Your task to perform on an android device: Search for a custom made wallet Image 0: 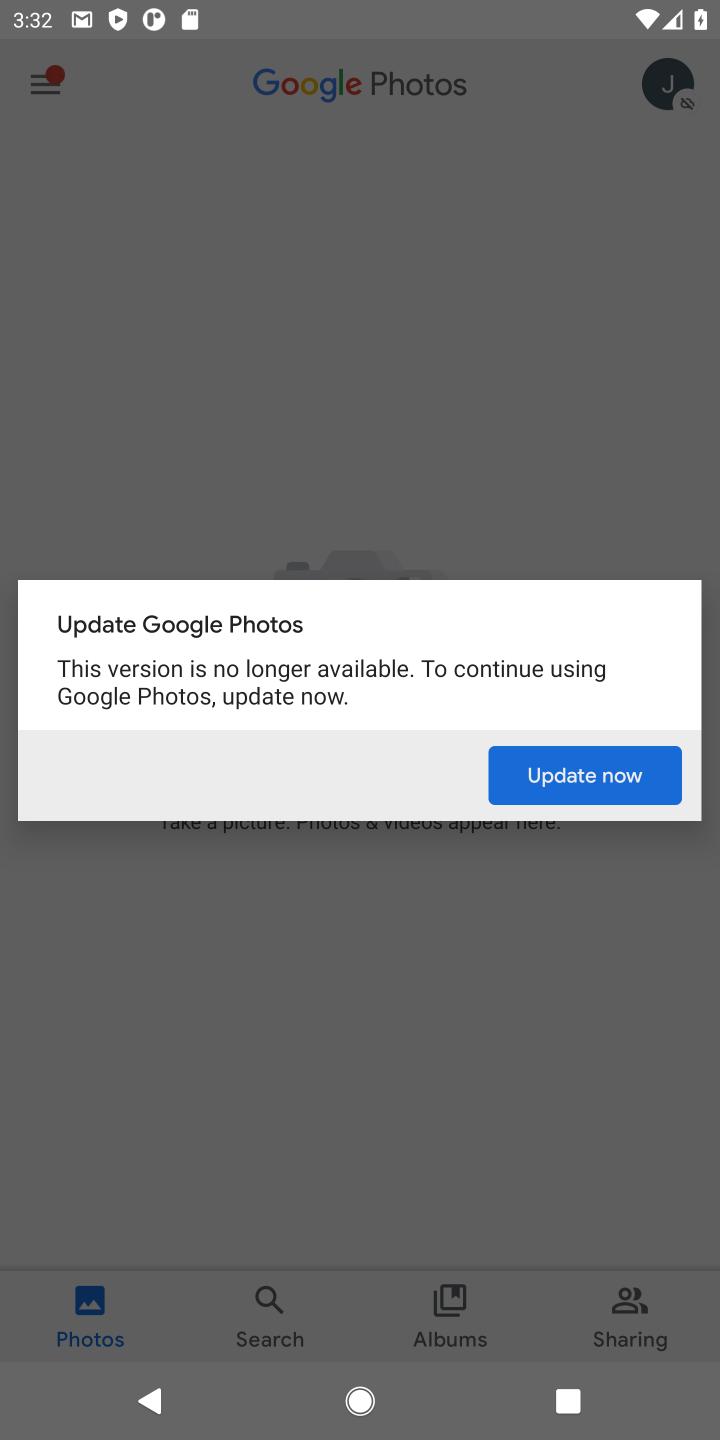
Step 0: press home button
Your task to perform on an android device: Search for a custom made wallet Image 1: 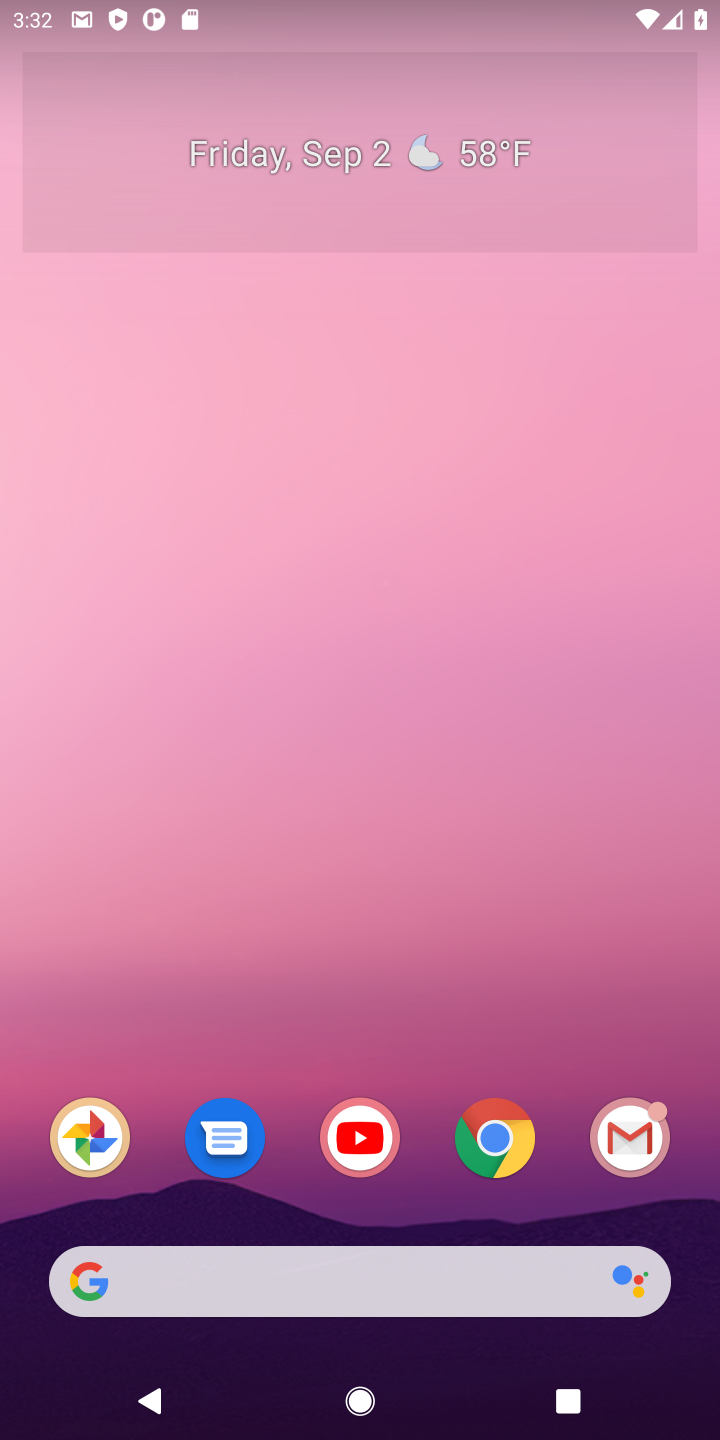
Step 1: click (489, 1174)
Your task to perform on an android device: Search for a custom made wallet Image 2: 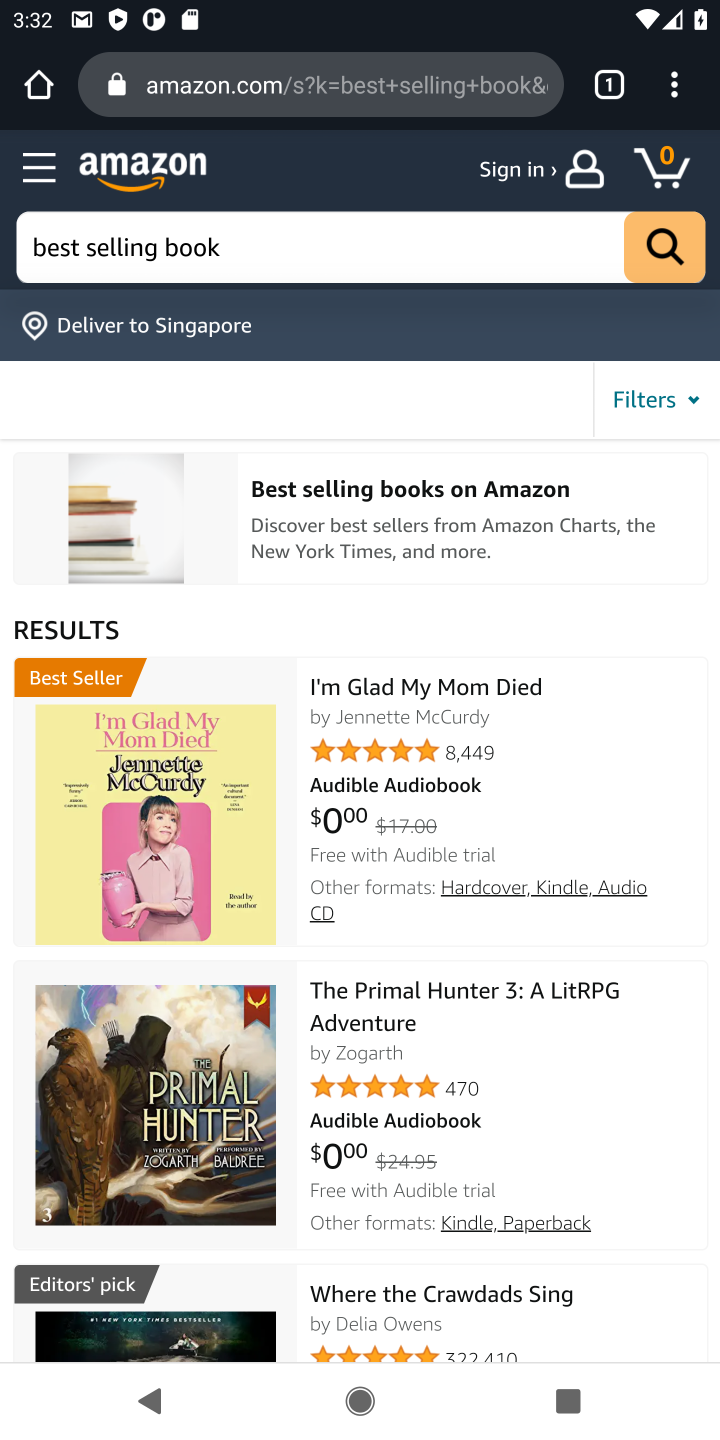
Step 2: click (272, 83)
Your task to perform on an android device: Search for a custom made wallet Image 3: 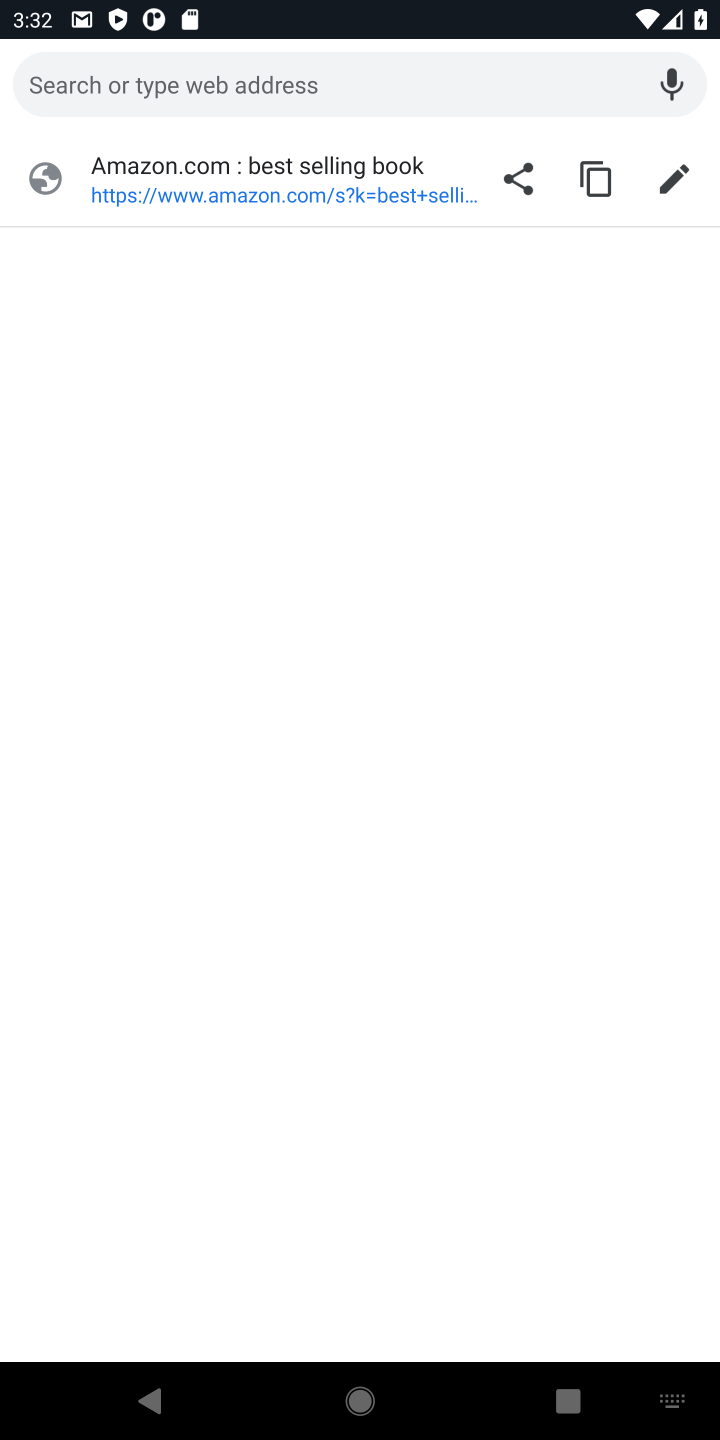
Step 3: type "custom made wallet"
Your task to perform on an android device: Search for a custom made wallet Image 4: 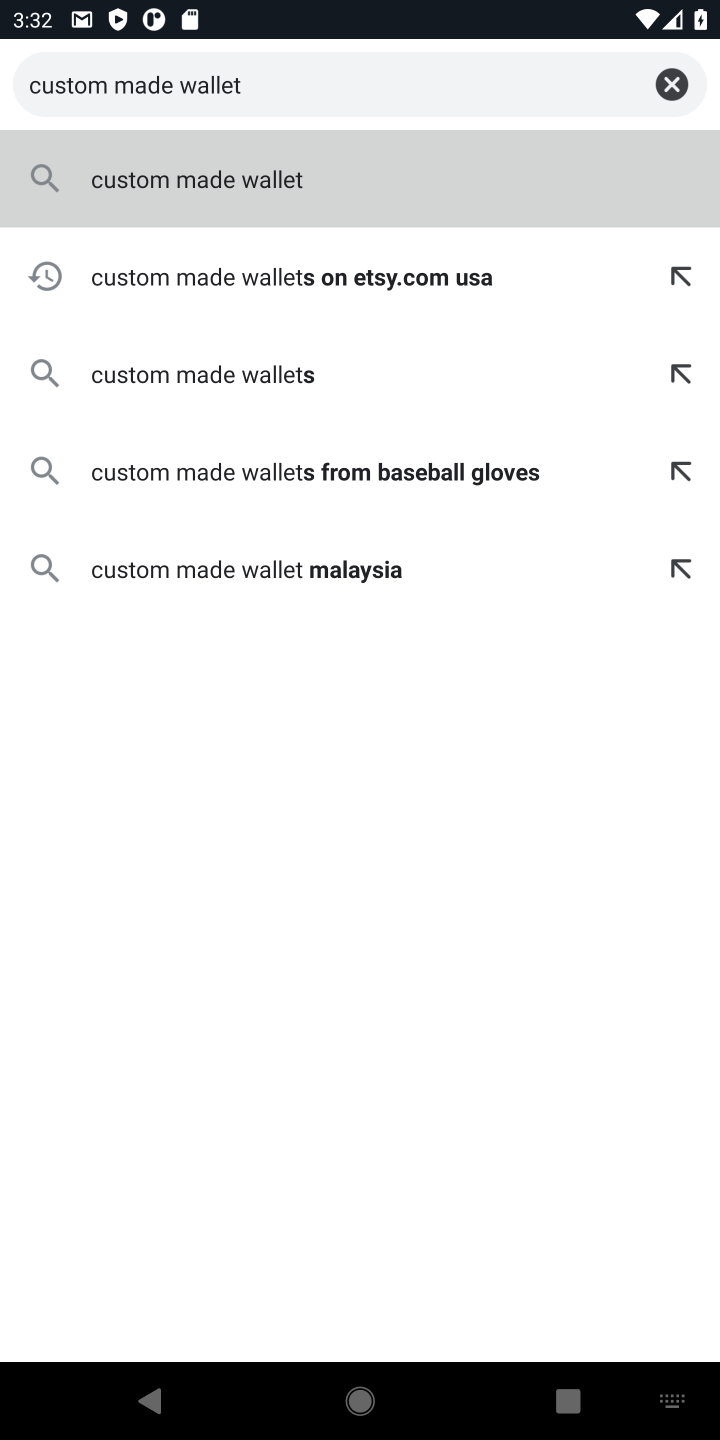
Step 4: click (464, 194)
Your task to perform on an android device: Search for a custom made wallet Image 5: 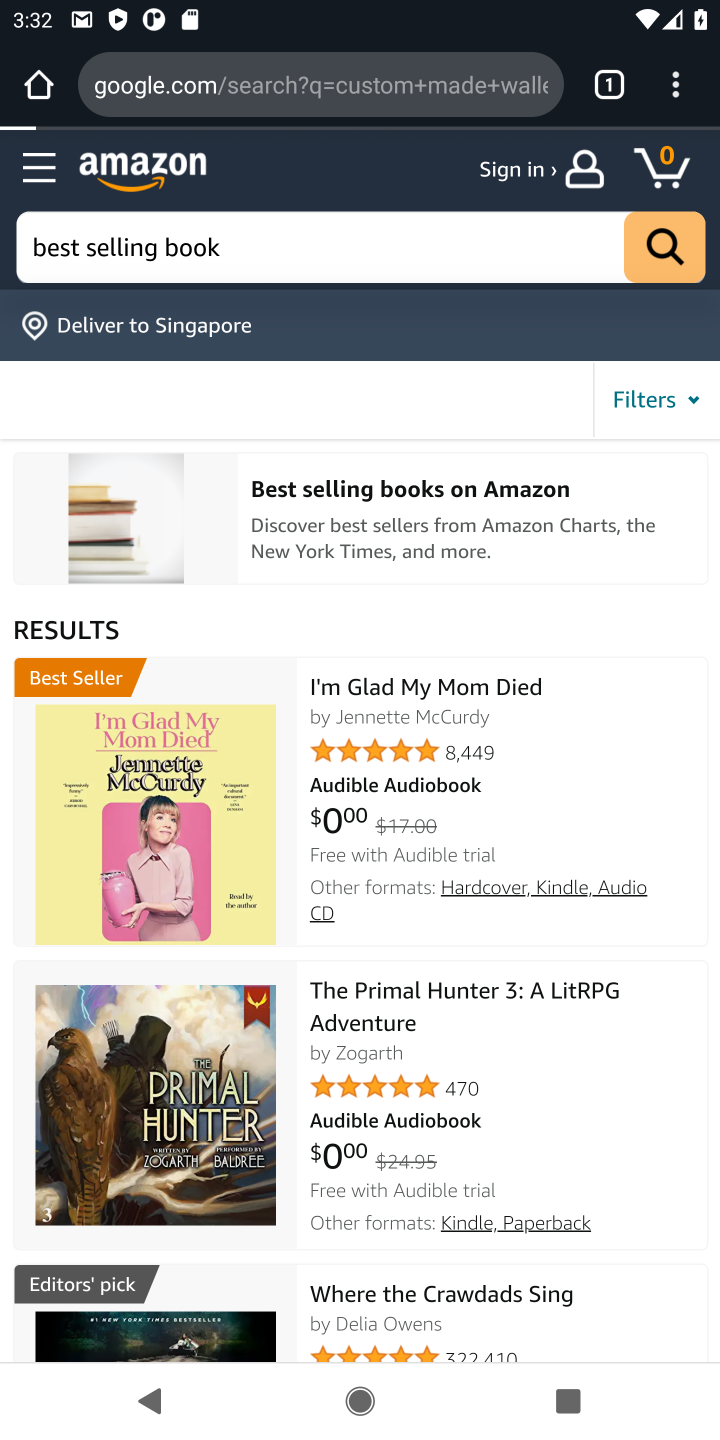
Step 5: click (464, 194)
Your task to perform on an android device: Search for a custom made wallet Image 6: 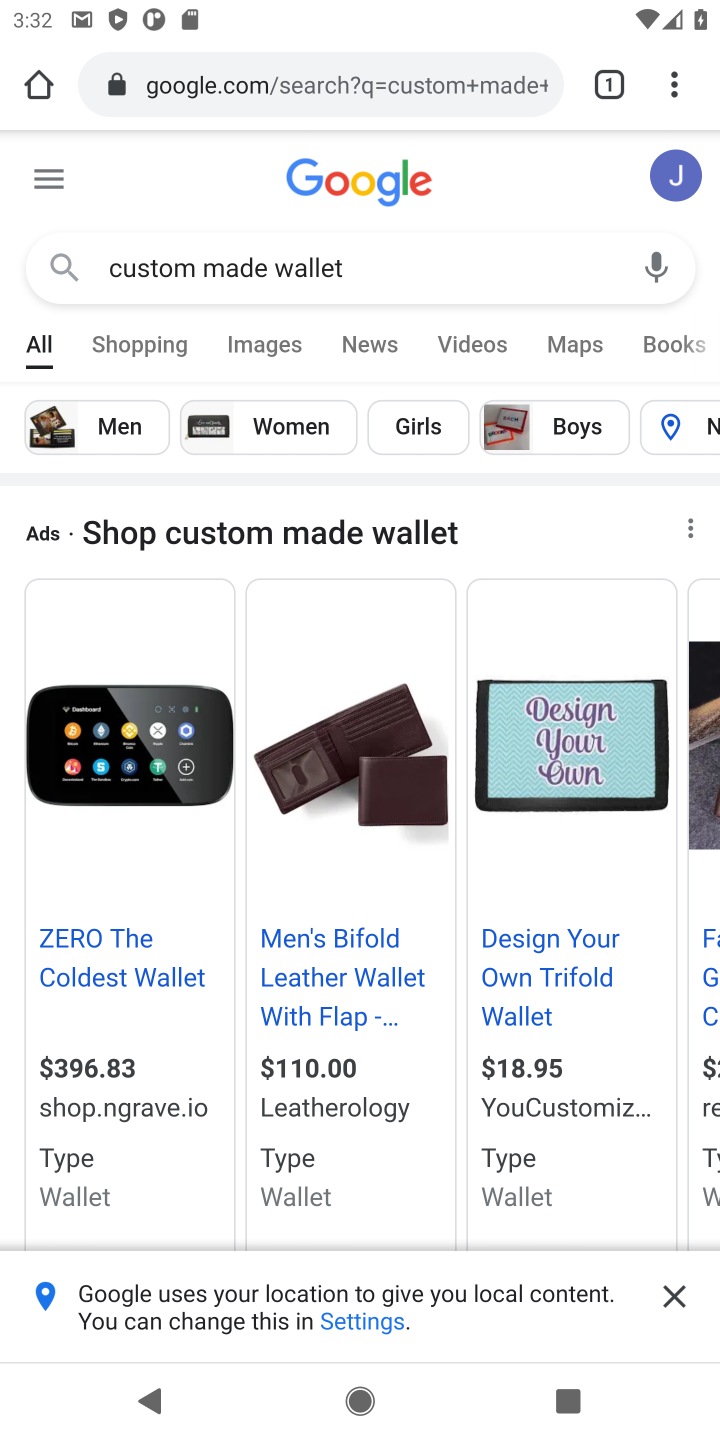
Step 6: task complete